Your task to perform on an android device: Add "razer huntsman" to the cart on bestbuy.com, then select checkout. Image 0: 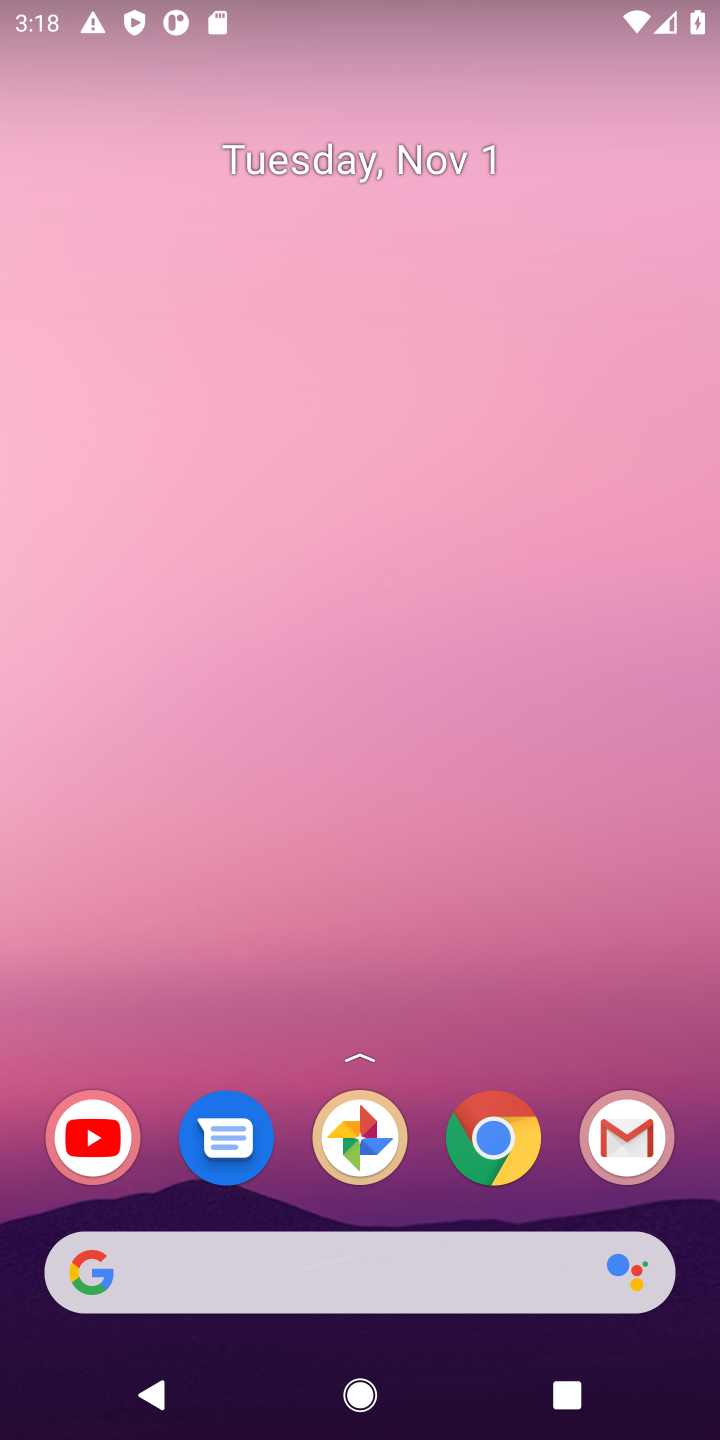
Step 0: click (507, 1138)
Your task to perform on an android device: Add "razer huntsman" to the cart on bestbuy.com, then select checkout. Image 1: 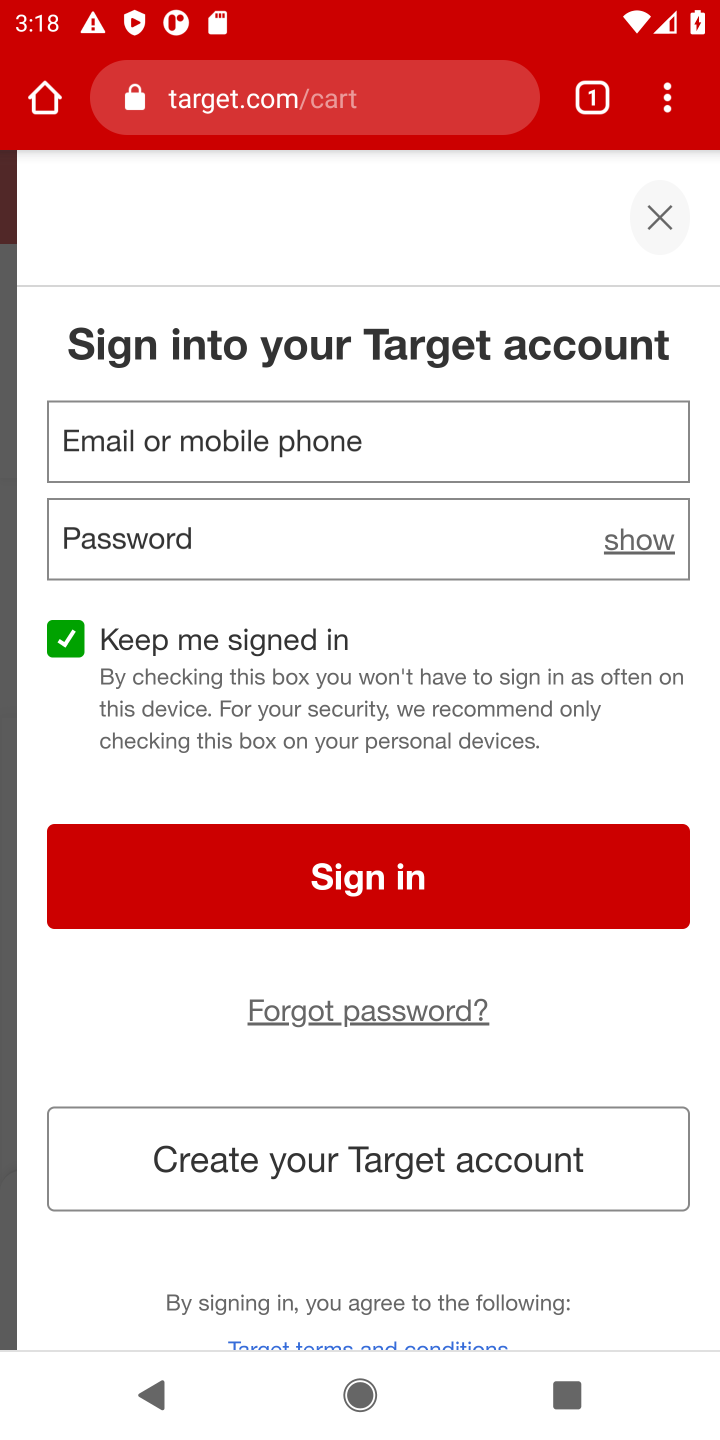
Step 1: click (265, 103)
Your task to perform on an android device: Add "razer huntsman" to the cart on bestbuy.com, then select checkout. Image 2: 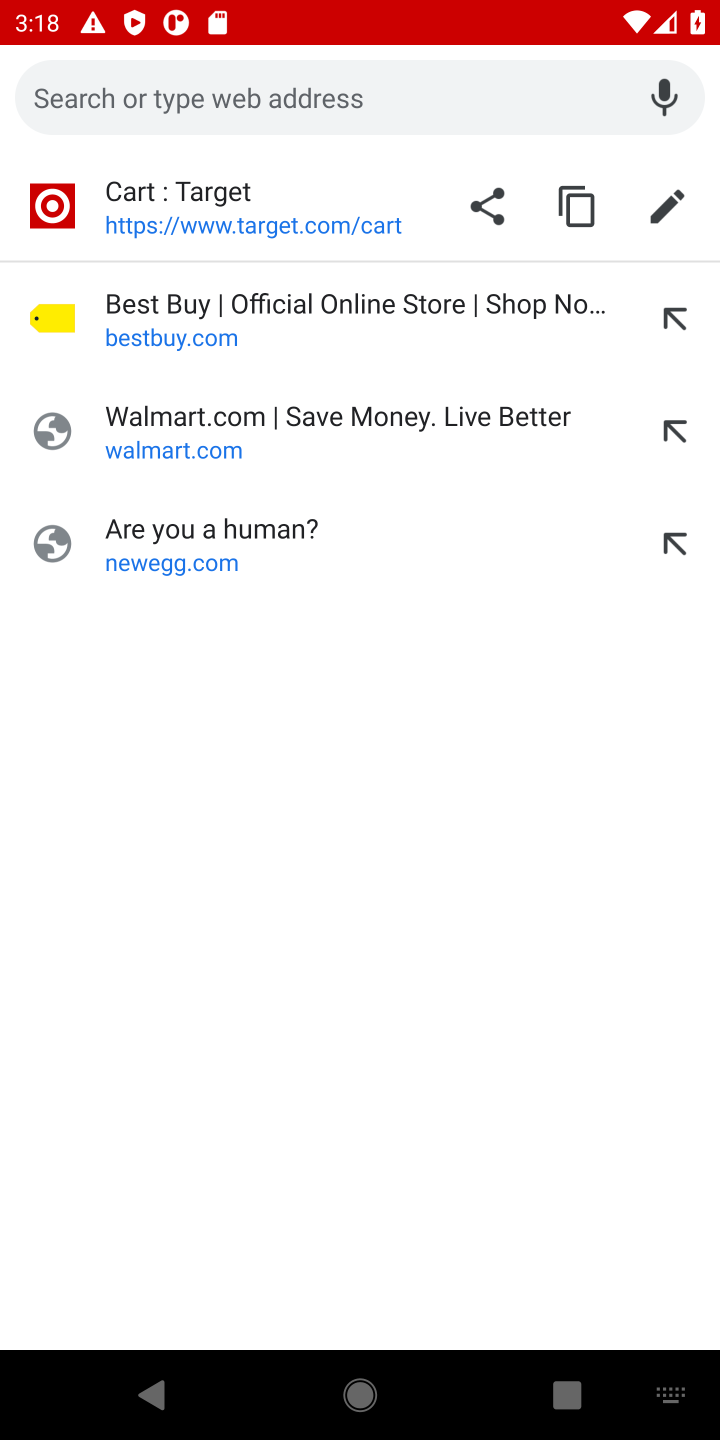
Step 2: type "bestbuy.com"
Your task to perform on an android device: Add "razer huntsman" to the cart on bestbuy.com, then select checkout. Image 3: 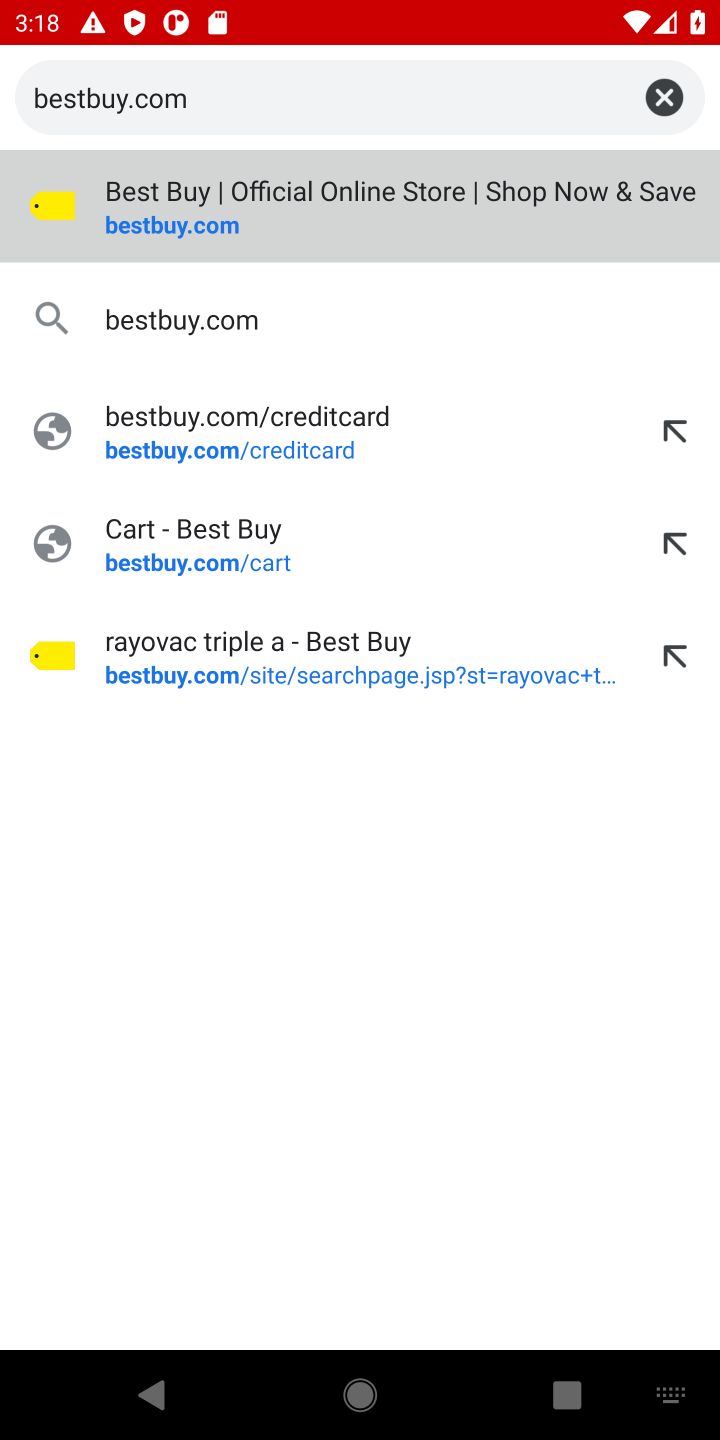
Step 3: click (252, 192)
Your task to perform on an android device: Add "razer huntsman" to the cart on bestbuy.com, then select checkout. Image 4: 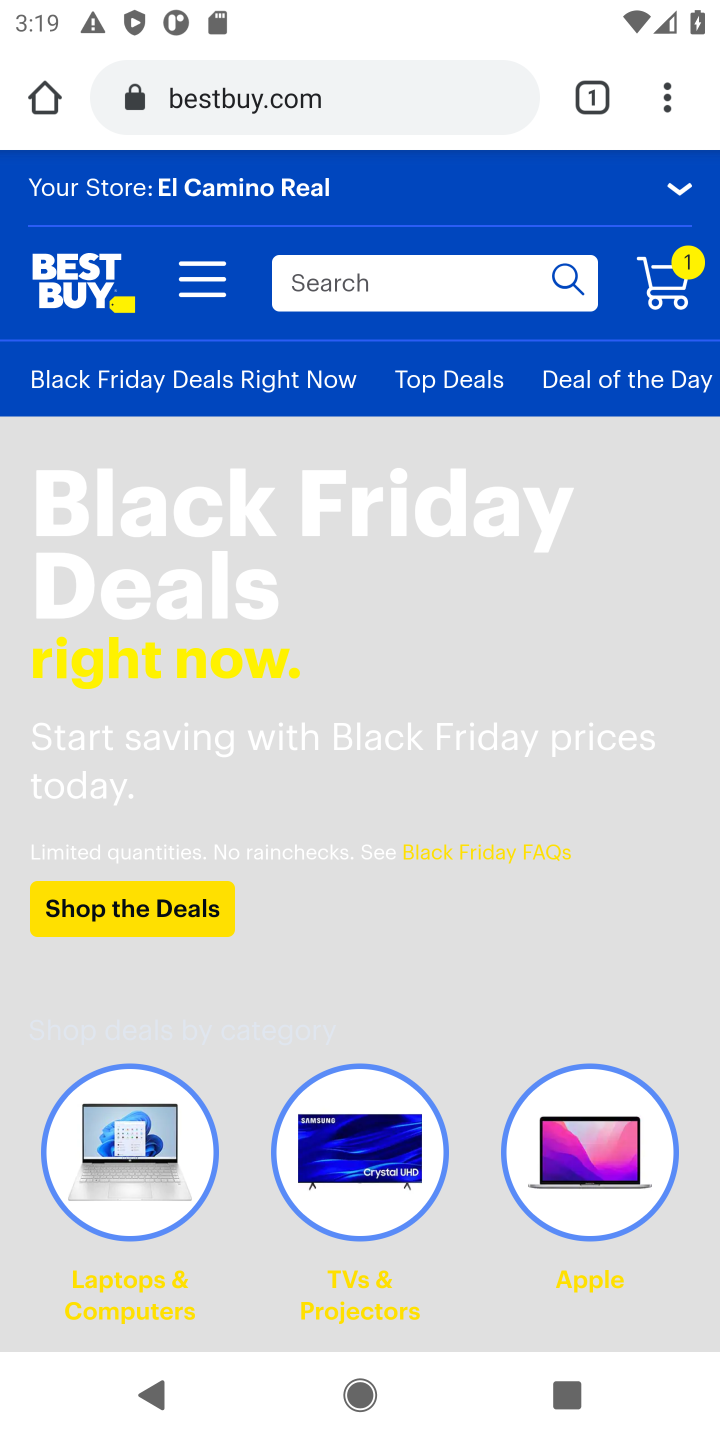
Step 4: click (356, 280)
Your task to perform on an android device: Add "razer huntsman" to the cart on bestbuy.com, then select checkout. Image 5: 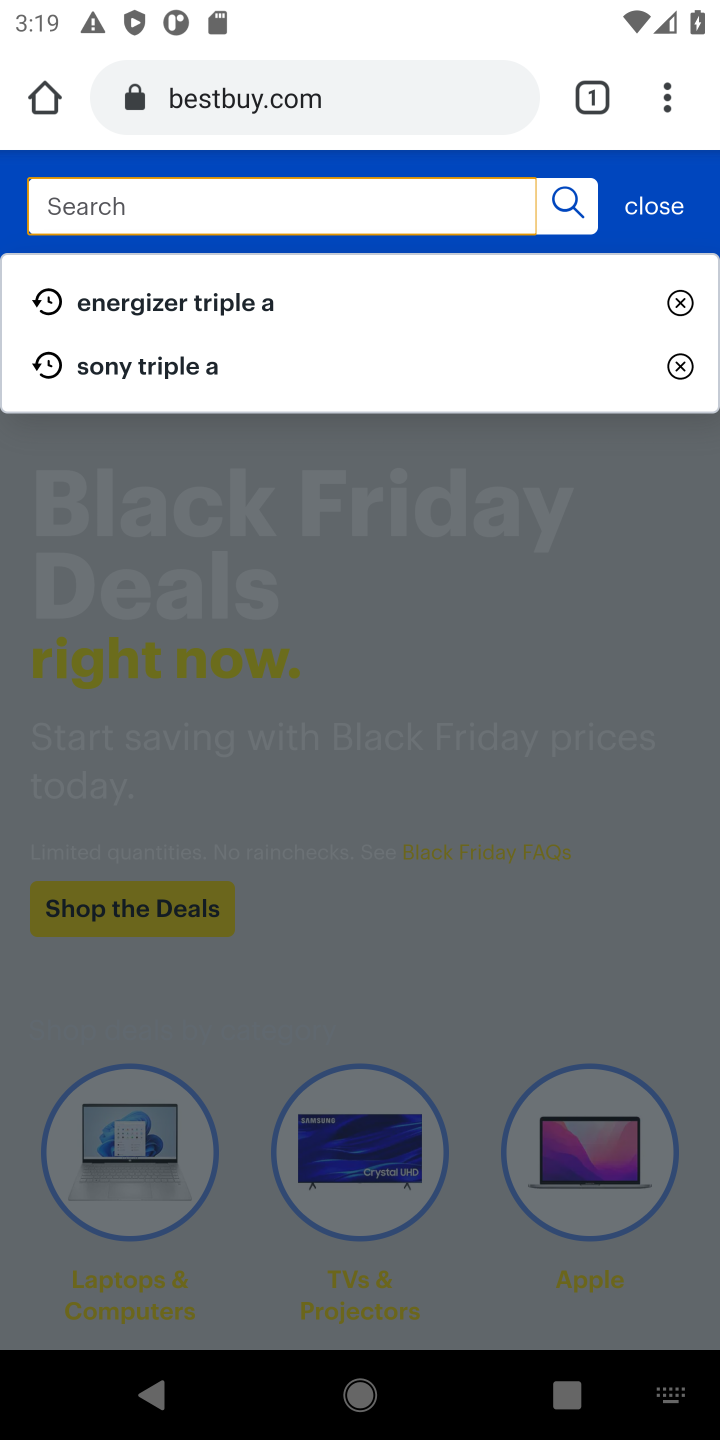
Step 5: type "razer huntsman"
Your task to perform on an android device: Add "razer huntsman" to the cart on bestbuy.com, then select checkout. Image 6: 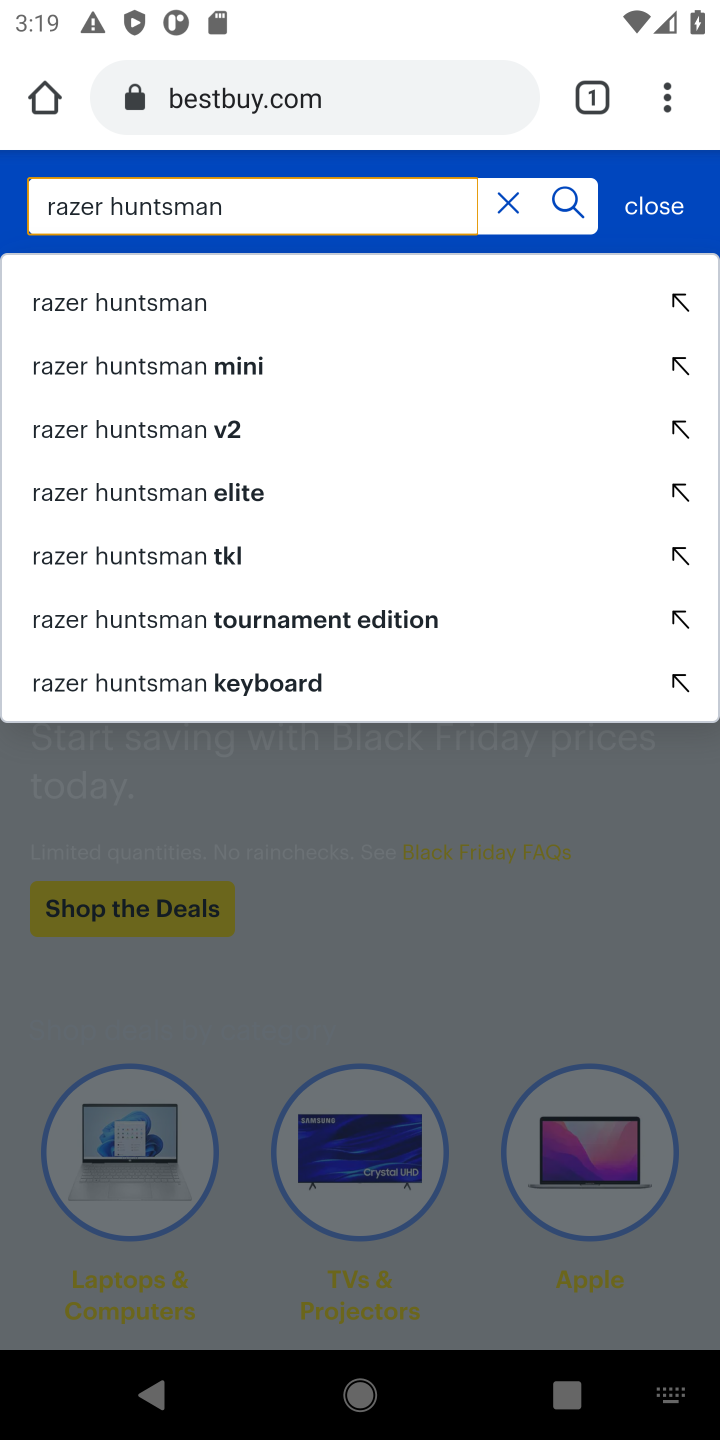
Step 6: click (189, 292)
Your task to perform on an android device: Add "razer huntsman" to the cart on bestbuy.com, then select checkout. Image 7: 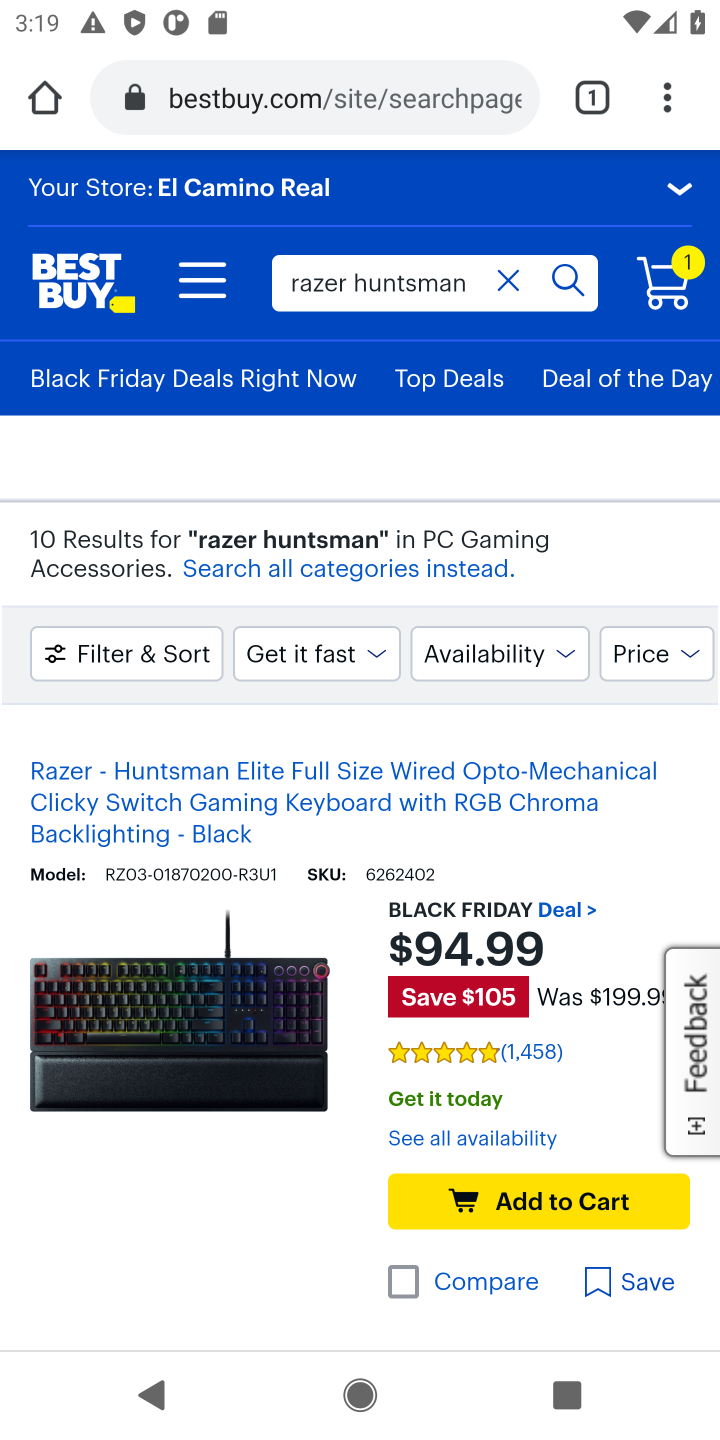
Step 7: click (485, 1207)
Your task to perform on an android device: Add "razer huntsman" to the cart on bestbuy.com, then select checkout. Image 8: 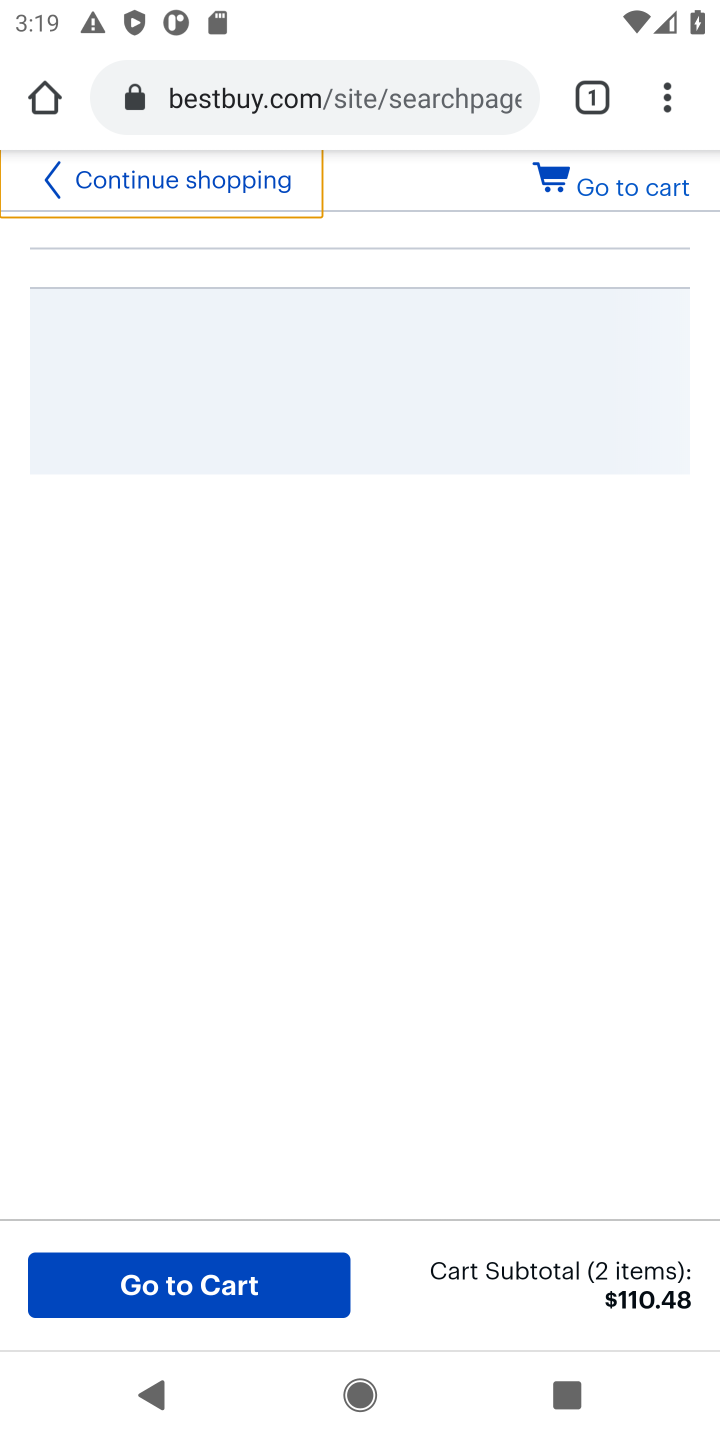
Step 8: click (255, 1274)
Your task to perform on an android device: Add "razer huntsman" to the cart on bestbuy.com, then select checkout. Image 9: 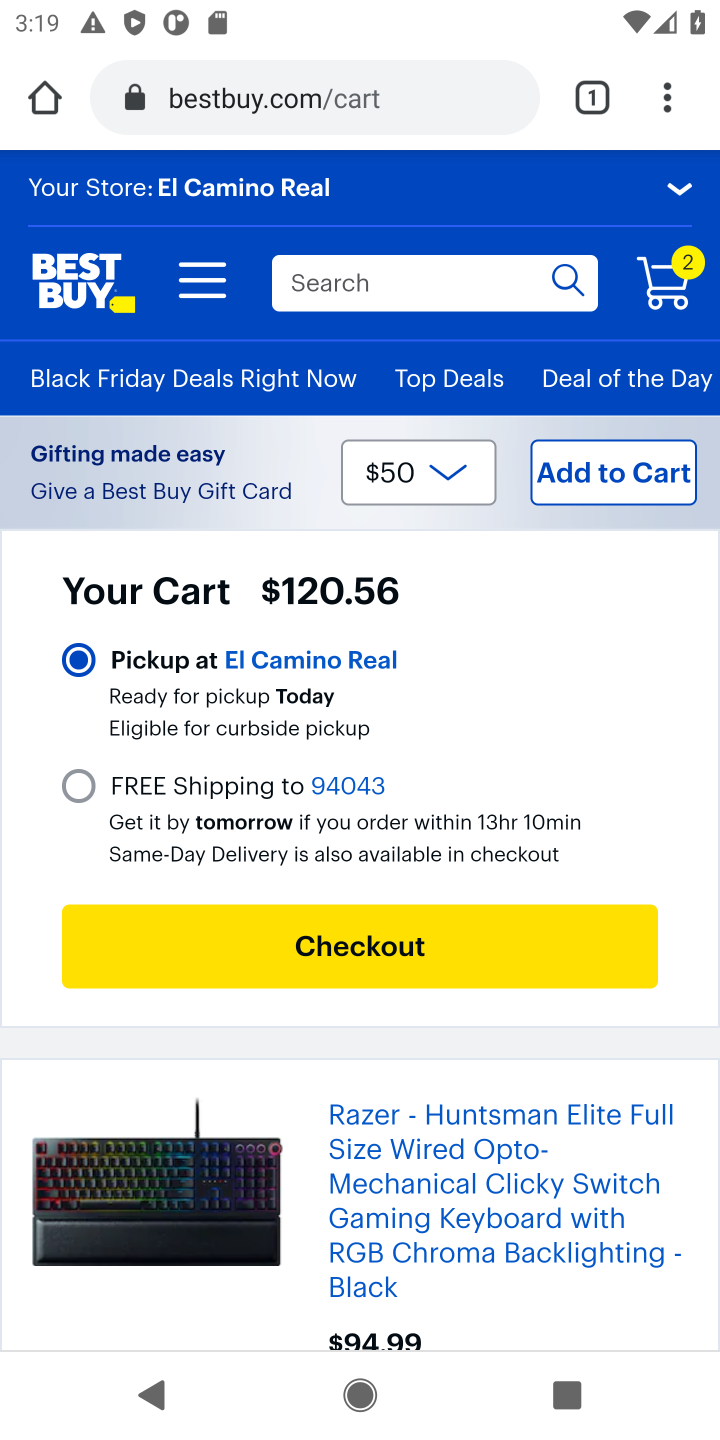
Step 9: click (441, 945)
Your task to perform on an android device: Add "razer huntsman" to the cart on bestbuy.com, then select checkout. Image 10: 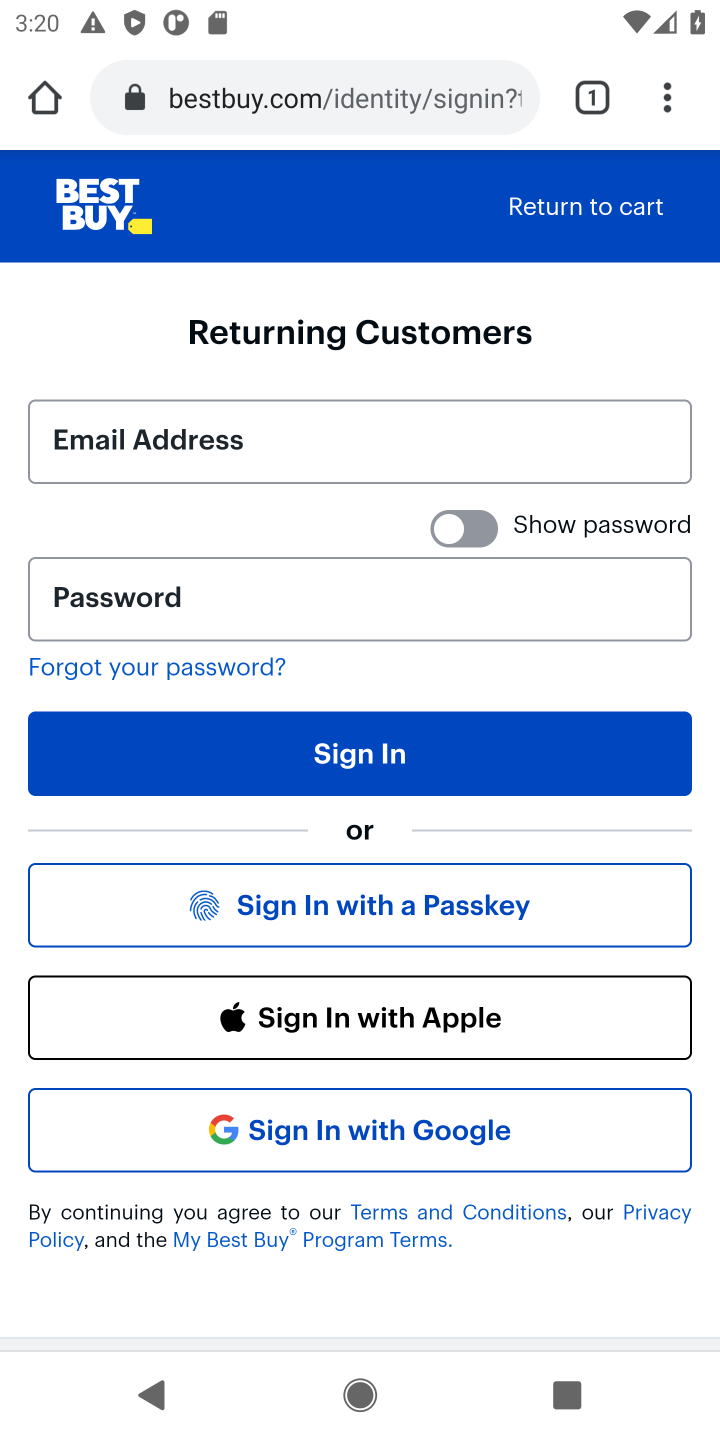
Step 10: task complete